Your task to perform on an android device: Is it going to rain today? Image 0: 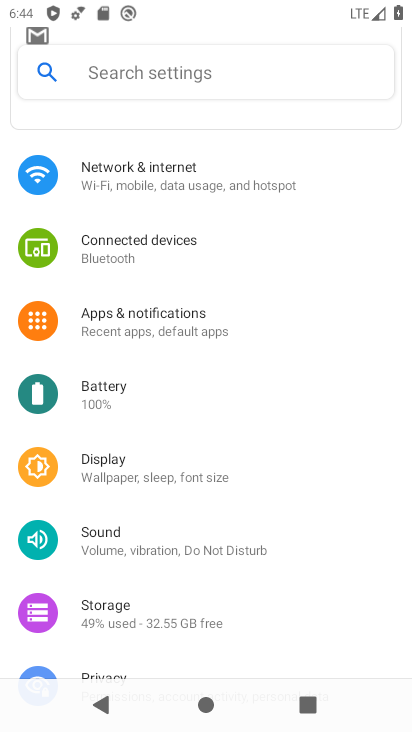
Step 0: press home button
Your task to perform on an android device: Is it going to rain today? Image 1: 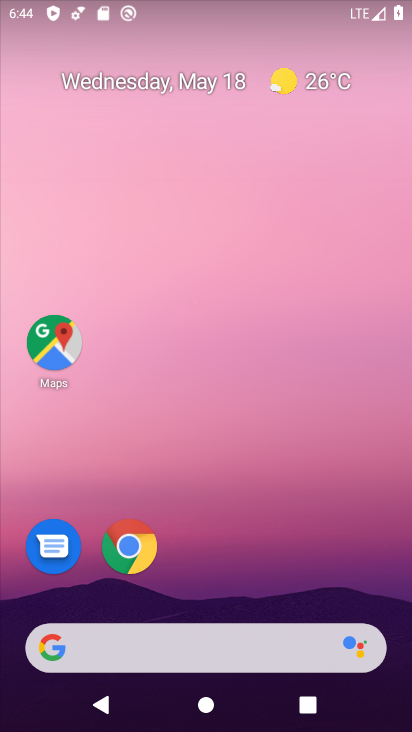
Step 1: drag from (328, 608) to (278, 38)
Your task to perform on an android device: Is it going to rain today? Image 2: 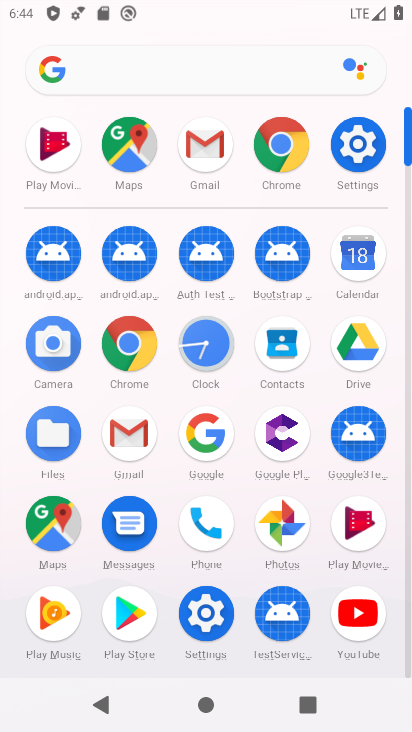
Step 2: click (209, 434)
Your task to perform on an android device: Is it going to rain today? Image 3: 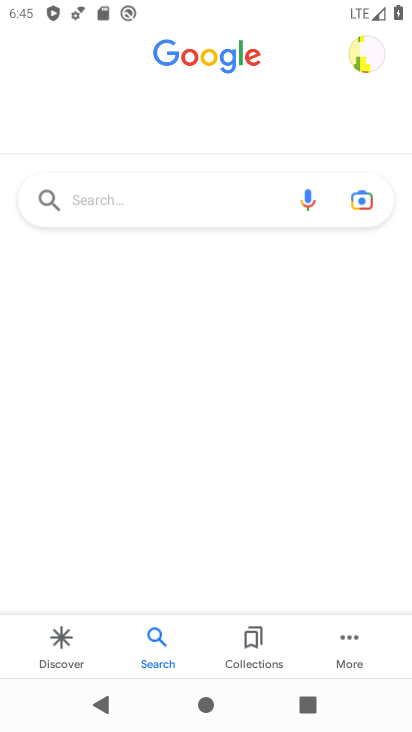
Step 3: click (160, 197)
Your task to perform on an android device: Is it going to rain today? Image 4: 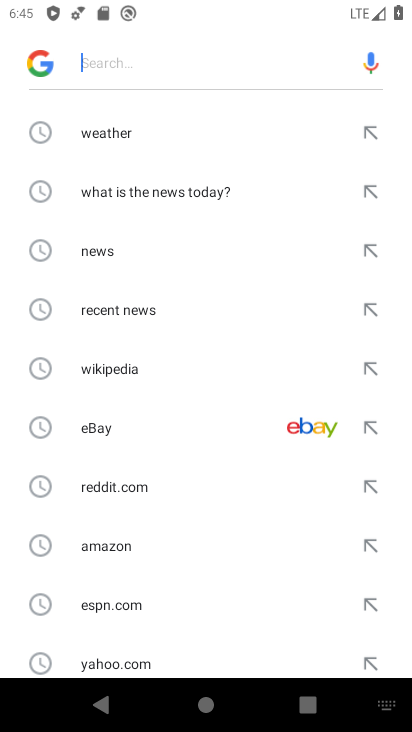
Step 4: drag from (162, 599) to (192, 159)
Your task to perform on an android device: Is it going to rain today? Image 5: 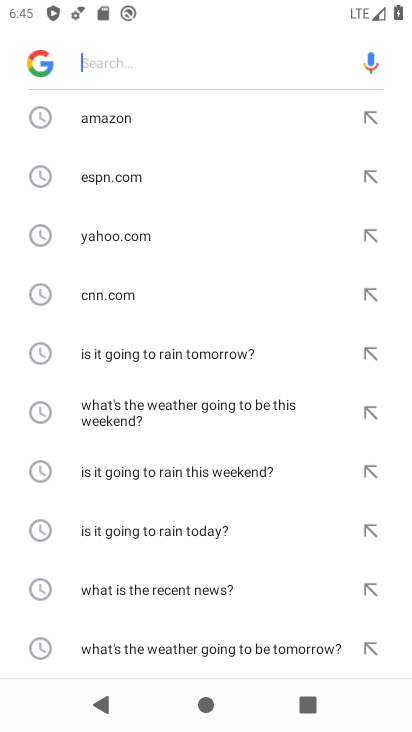
Step 5: click (191, 529)
Your task to perform on an android device: Is it going to rain today? Image 6: 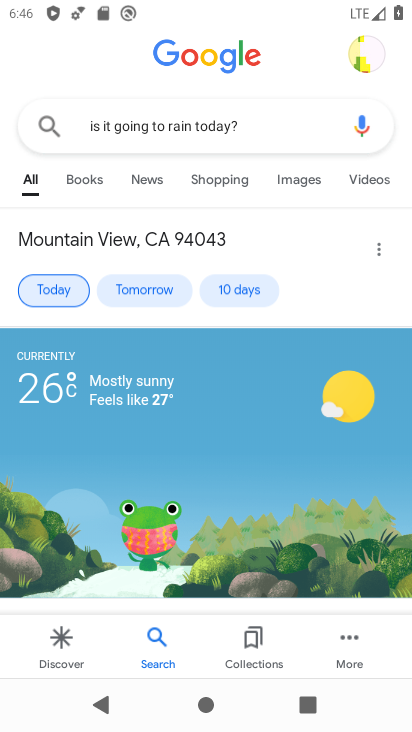
Step 6: task complete